Your task to perform on an android device: open app "Life360: Find Family & Friends" Image 0: 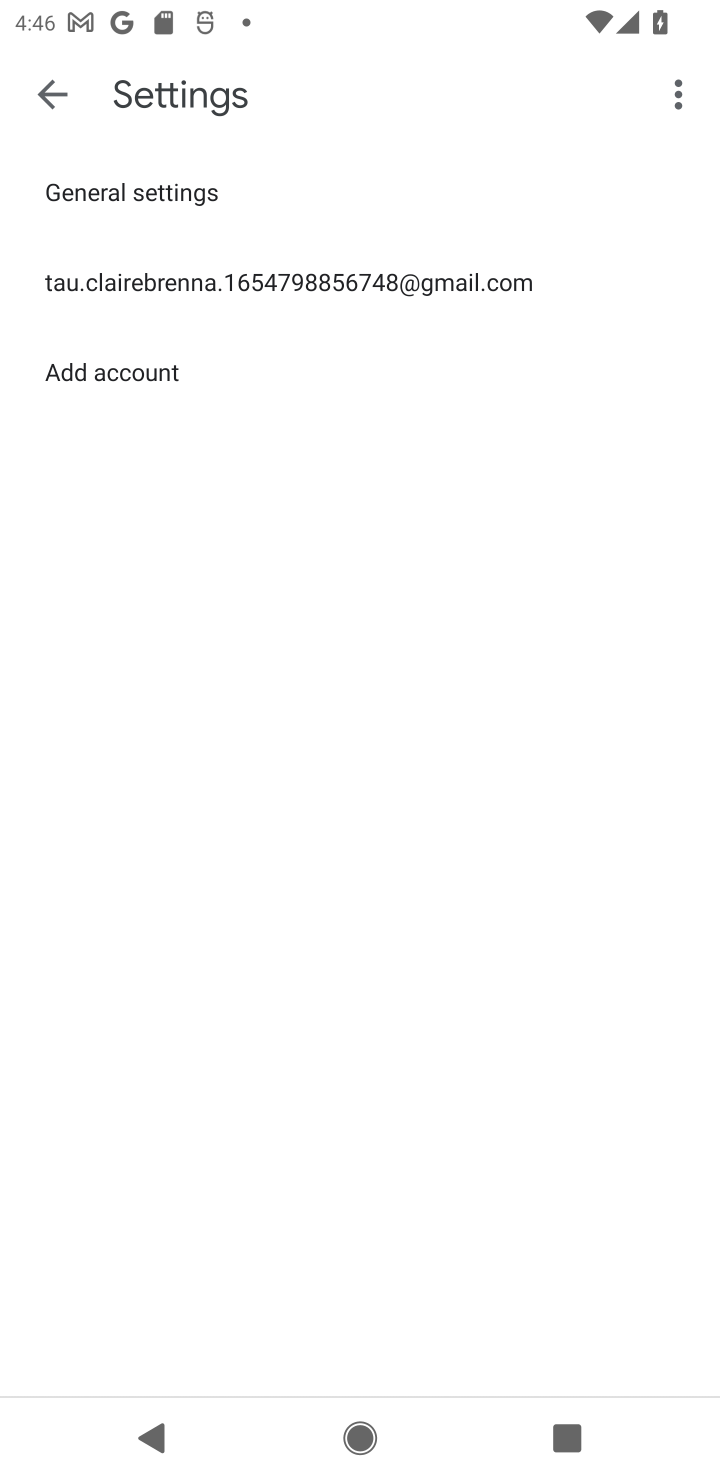
Step 0: press home button
Your task to perform on an android device: open app "Life360: Find Family & Friends" Image 1: 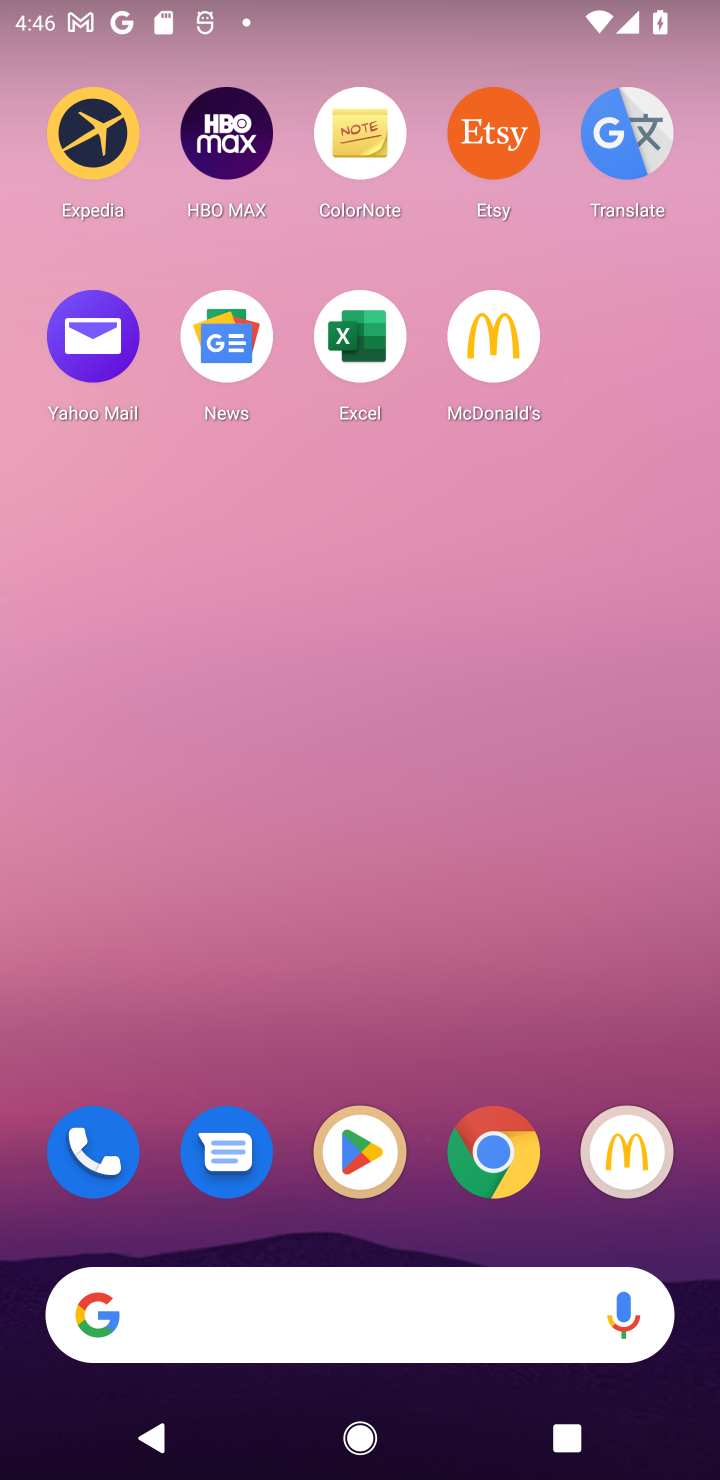
Step 1: click (347, 1154)
Your task to perform on an android device: open app "Life360: Find Family & Friends" Image 2: 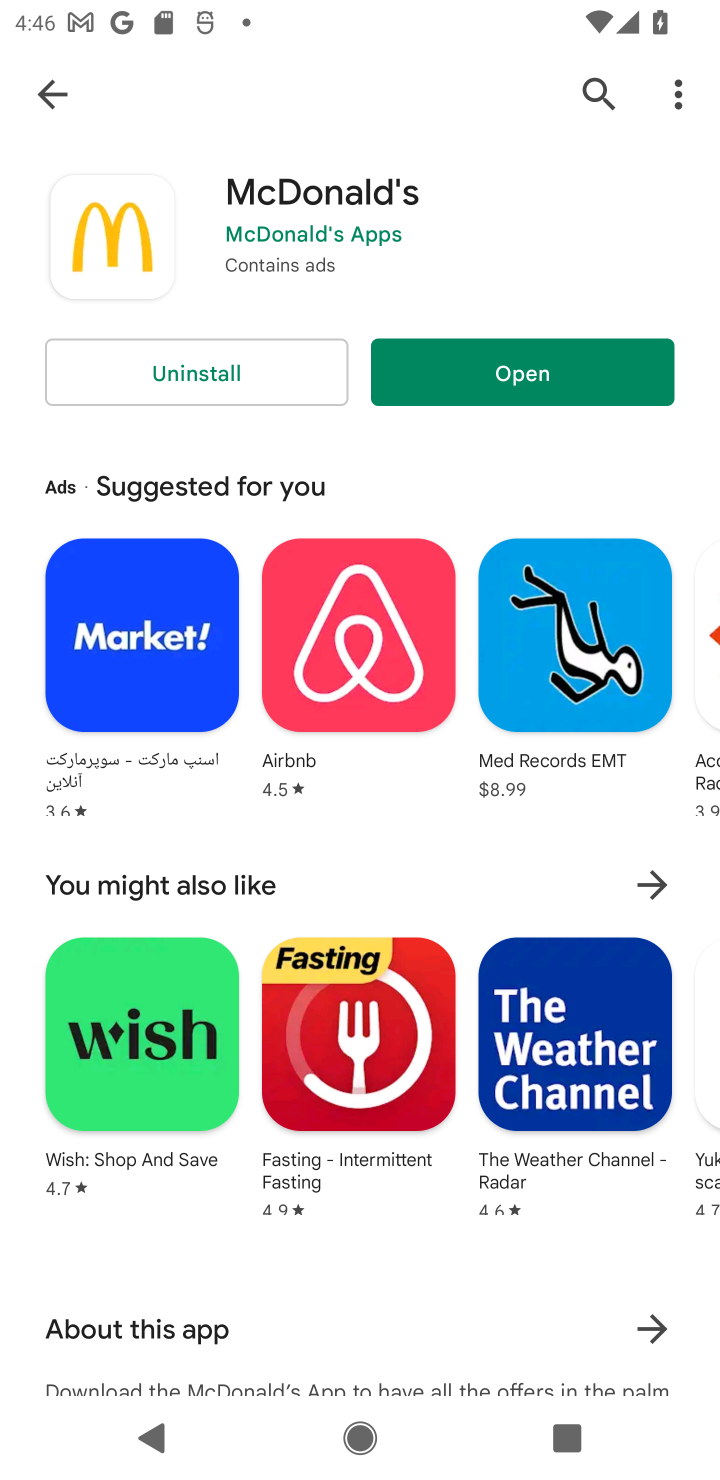
Step 2: click (39, 78)
Your task to perform on an android device: open app "Life360: Find Family & Friends" Image 3: 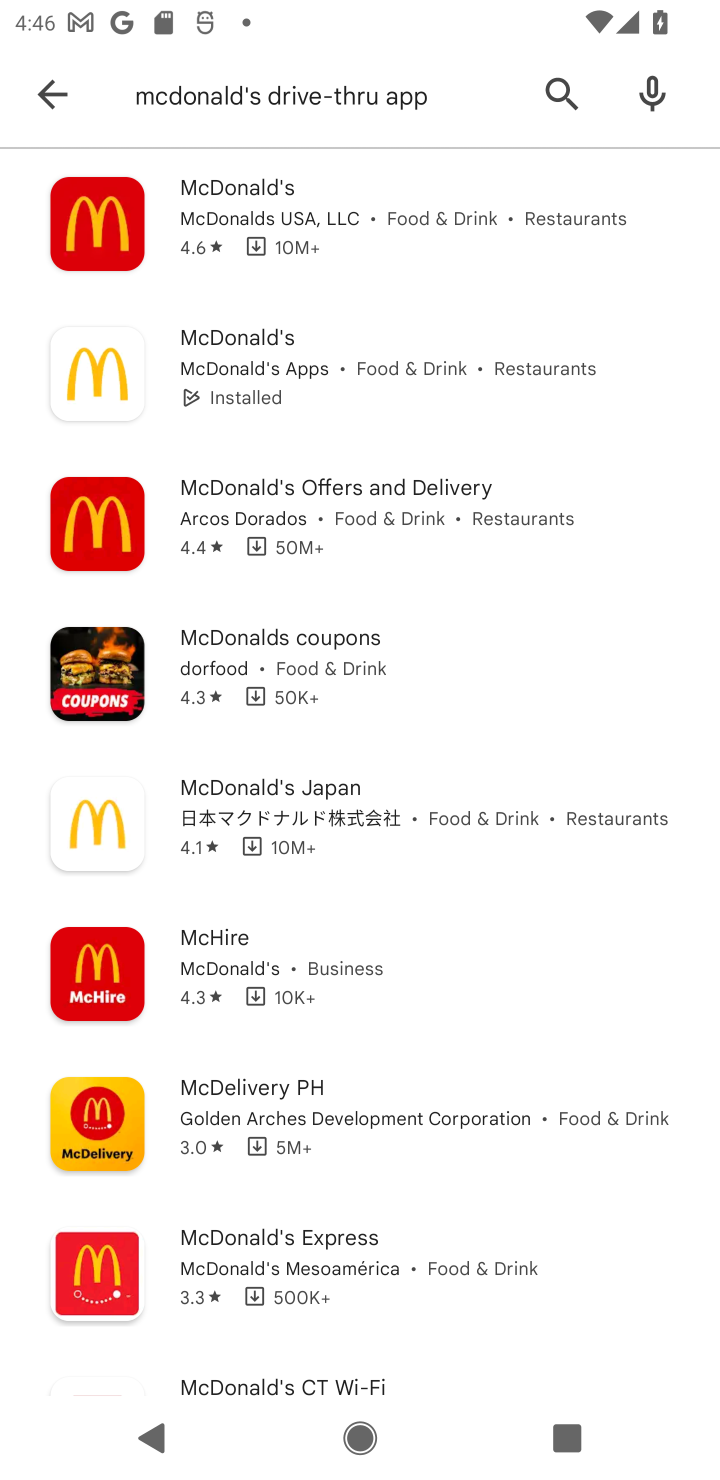
Step 3: click (560, 86)
Your task to perform on an android device: open app "Life360: Find Family & Friends" Image 4: 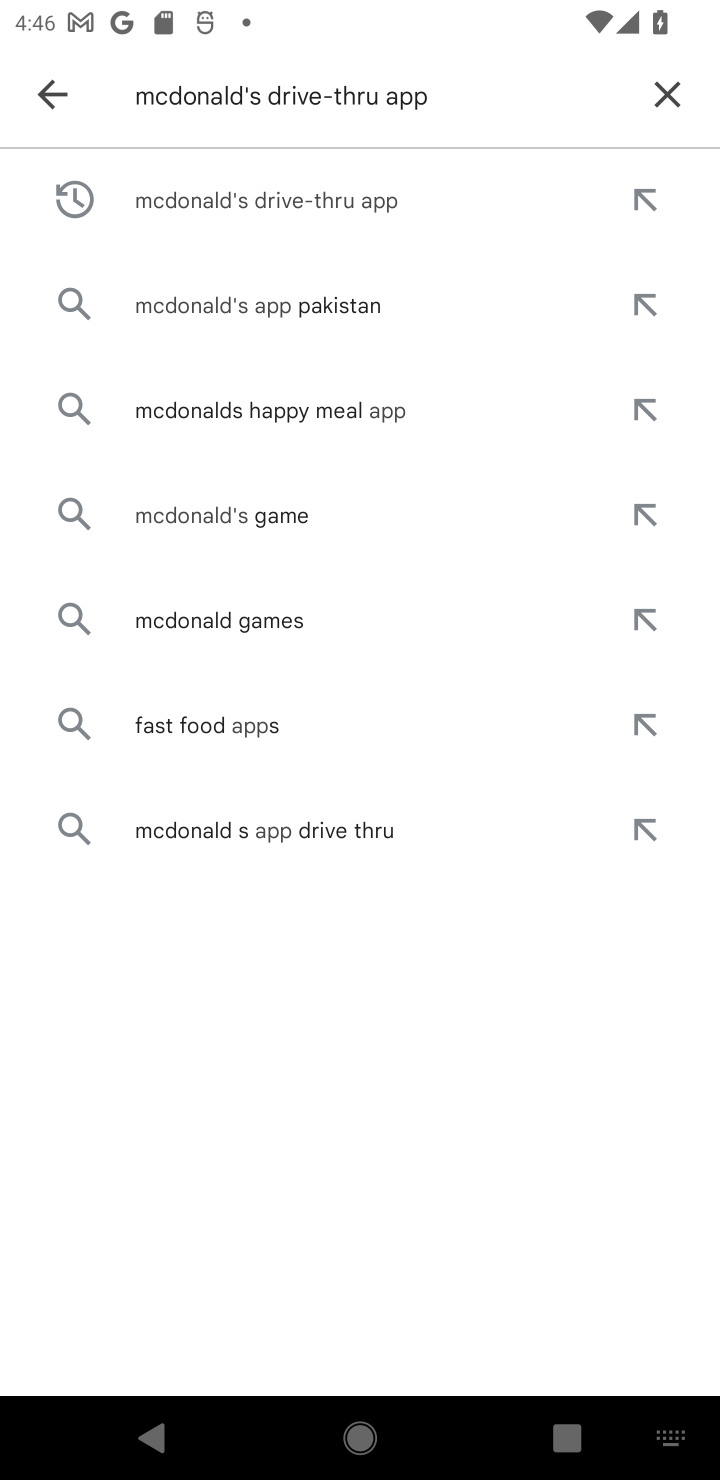
Step 4: click (670, 87)
Your task to perform on an android device: open app "Life360: Find Family & Friends" Image 5: 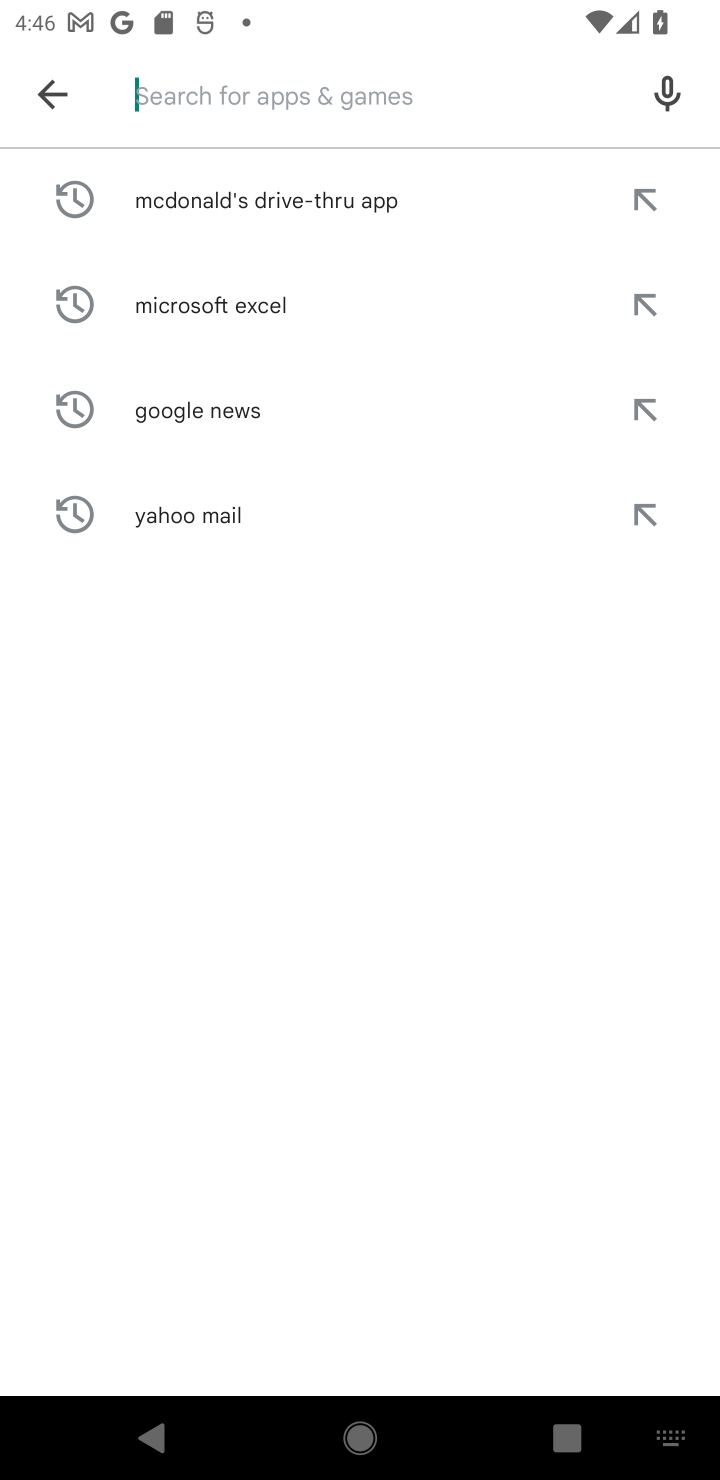
Step 5: type "Life360: Find Family & Friends"
Your task to perform on an android device: open app "Life360: Find Family & Friends" Image 6: 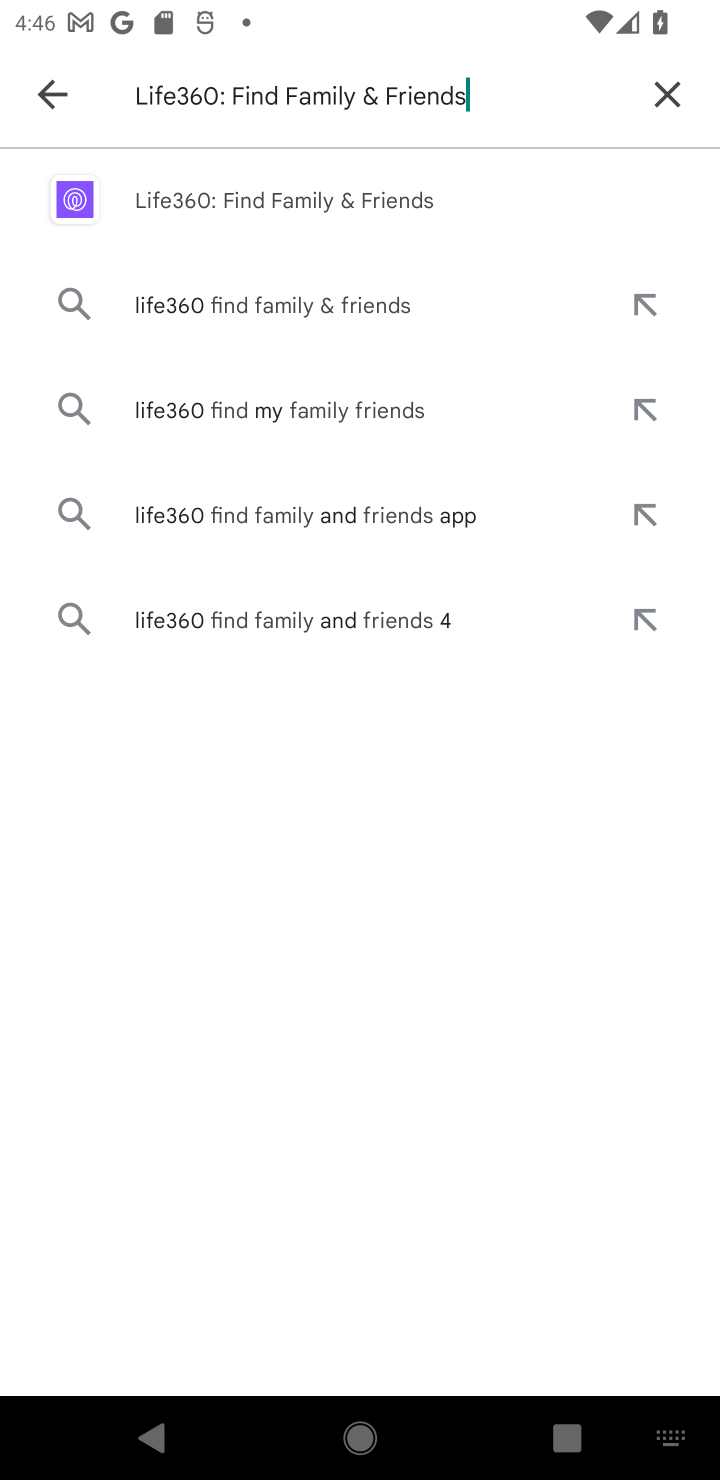
Step 6: click (177, 181)
Your task to perform on an android device: open app "Life360: Find Family & Friends" Image 7: 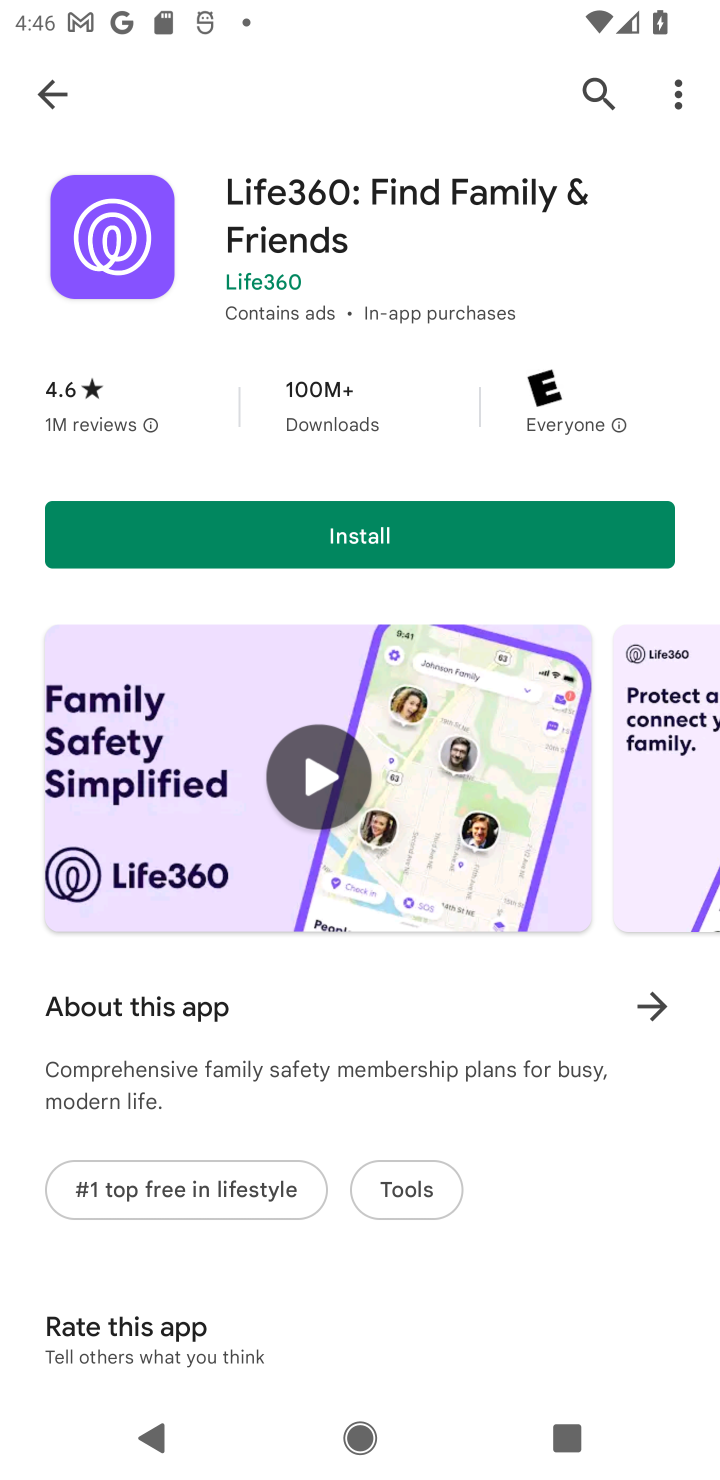
Step 7: task complete